Your task to perform on an android device: Open Chrome and go to settings Image 0: 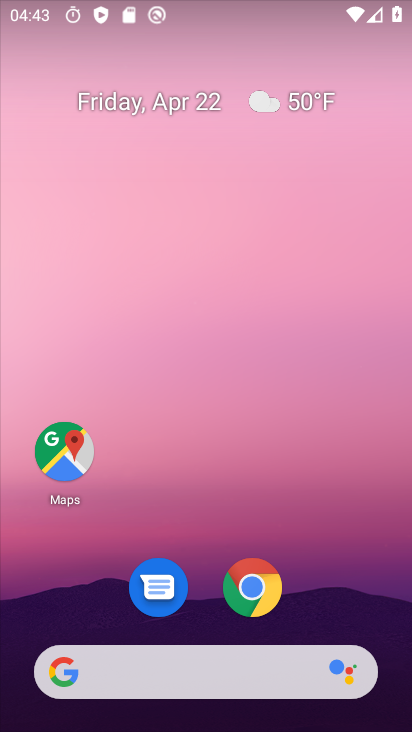
Step 0: click (250, 598)
Your task to perform on an android device: Open Chrome and go to settings Image 1: 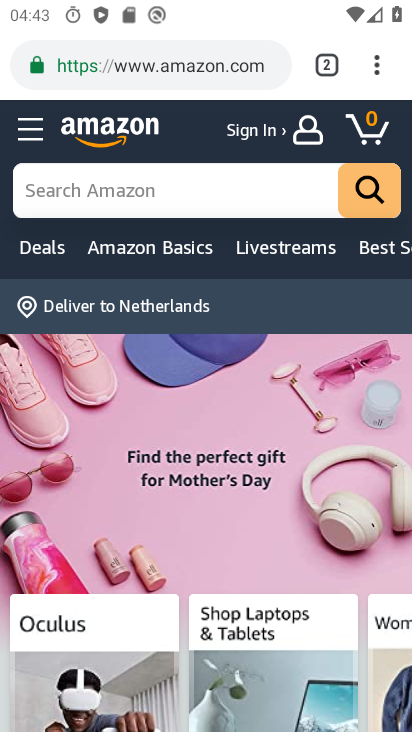
Step 1: click (377, 70)
Your task to perform on an android device: Open Chrome and go to settings Image 2: 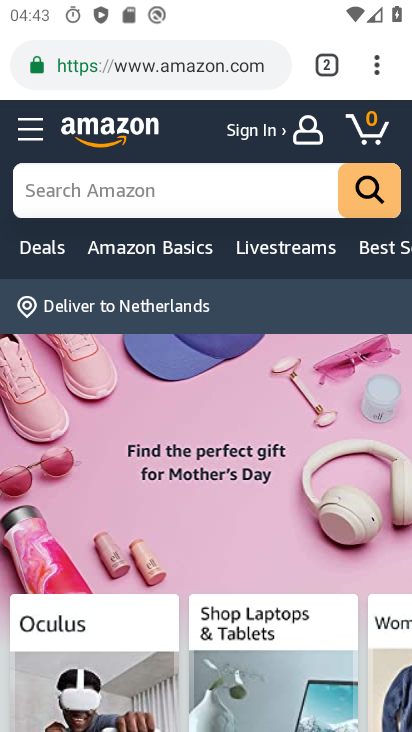
Step 2: click (376, 67)
Your task to perform on an android device: Open Chrome and go to settings Image 3: 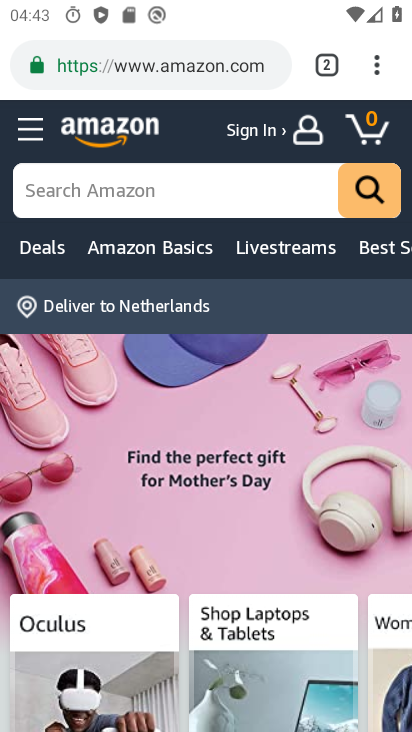
Step 3: task complete